Your task to perform on an android device: Show the shopping cart on amazon.com. Image 0: 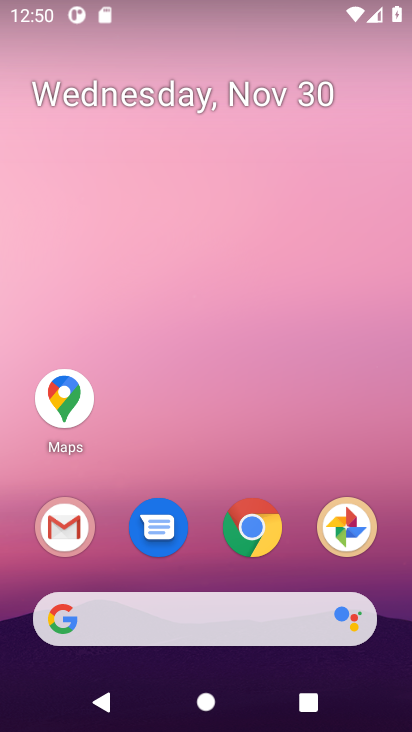
Step 0: click (263, 605)
Your task to perform on an android device: Show the shopping cart on amazon.com. Image 1: 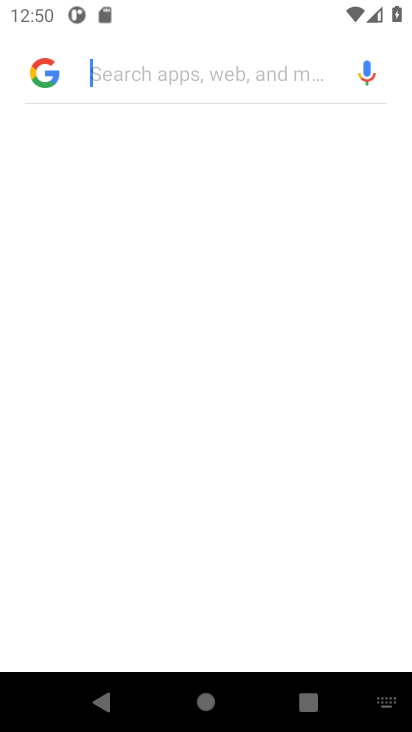
Step 1: press home button
Your task to perform on an android device: Show the shopping cart on amazon.com. Image 2: 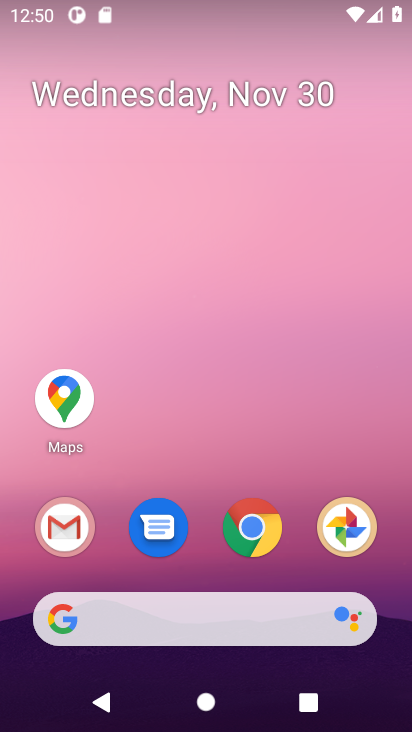
Step 2: click (264, 536)
Your task to perform on an android device: Show the shopping cart on amazon.com. Image 3: 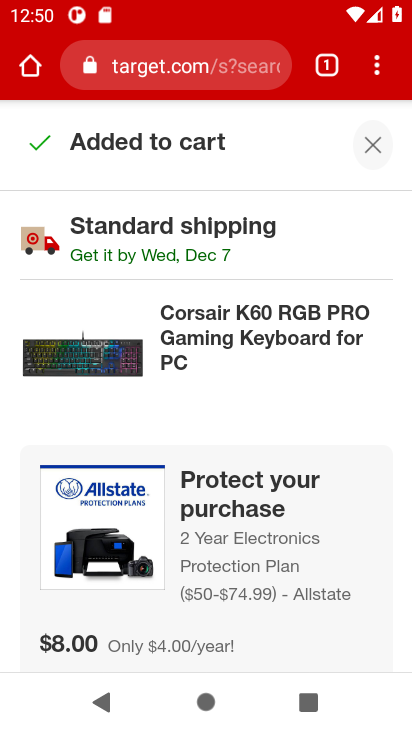
Step 3: click (371, 144)
Your task to perform on an android device: Show the shopping cart on amazon.com. Image 4: 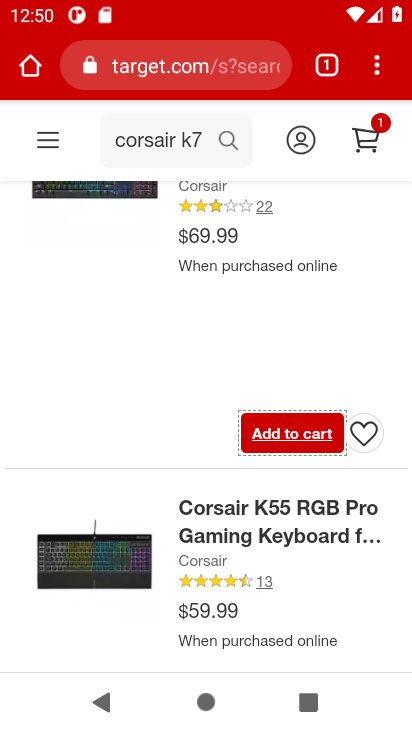
Step 4: click (205, 137)
Your task to perform on an android device: Show the shopping cart on amazon.com. Image 5: 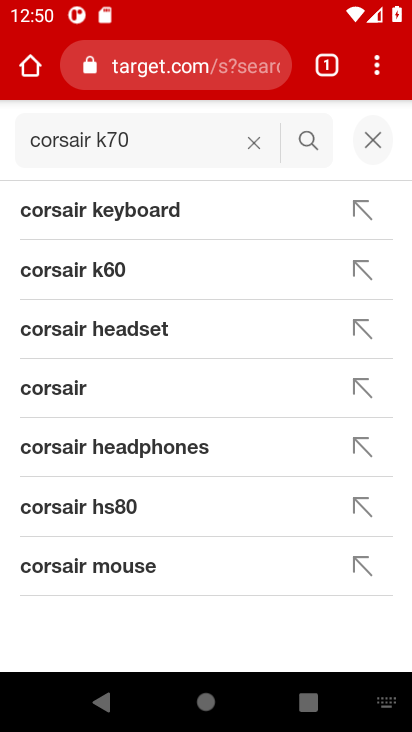
Step 5: click (246, 137)
Your task to perform on an android device: Show the shopping cart on amazon.com. Image 6: 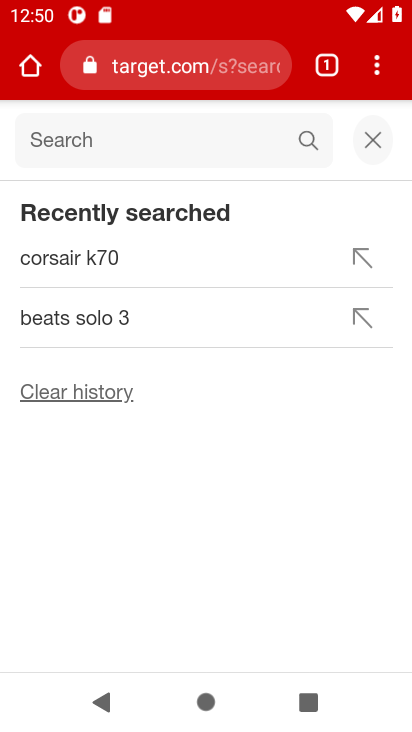
Step 6: click (195, 62)
Your task to perform on an android device: Show the shopping cart on amazon.com. Image 7: 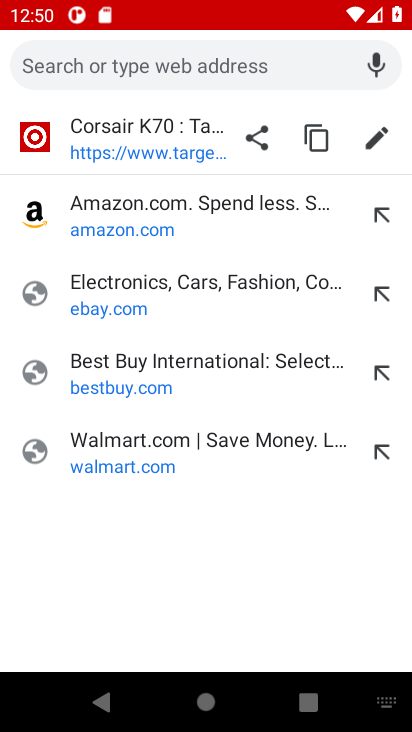
Step 7: click (189, 222)
Your task to perform on an android device: Show the shopping cart on amazon.com. Image 8: 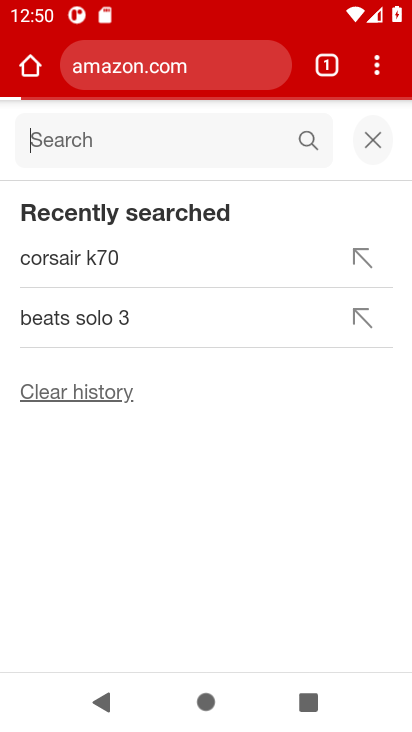
Step 8: click (136, 124)
Your task to perform on an android device: Show the shopping cart on amazon.com. Image 9: 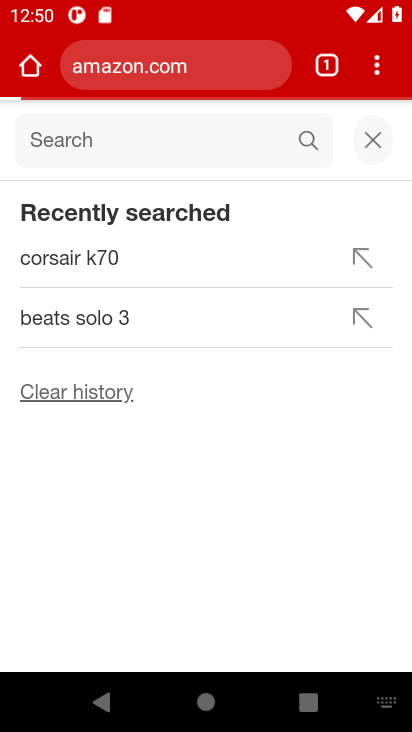
Step 9: click (212, 73)
Your task to perform on an android device: Show the shopping cart on amazon.com. Image 10: 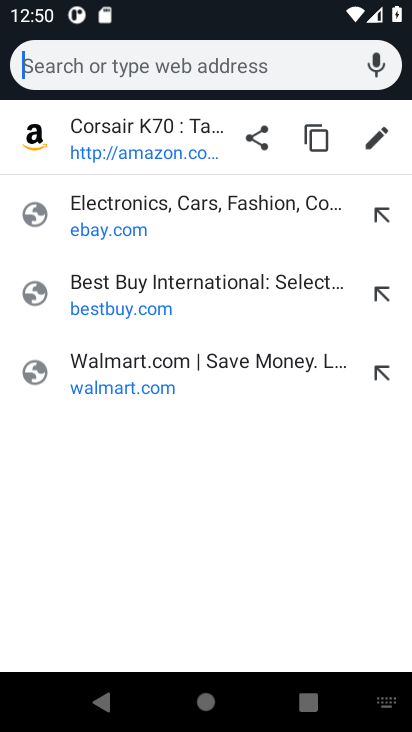
Step 10: press back button
Your task to perform on an android device: Show the shopping cart on amazon.com. Image 11: 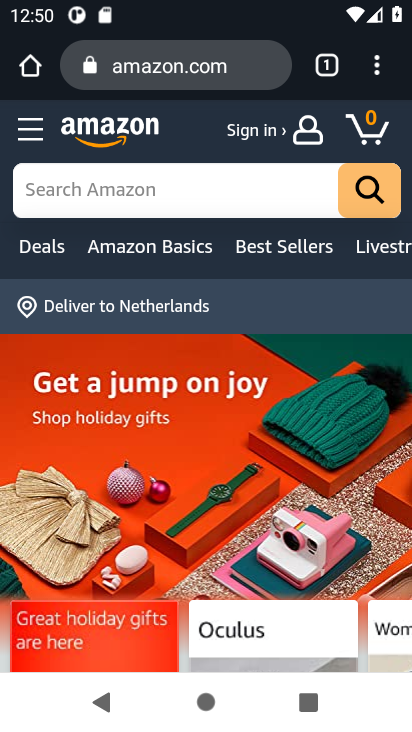
Step 11: click (196, 202)
Your task to perform on an android device: Show the shopping cart on amazon.com. Image 12: 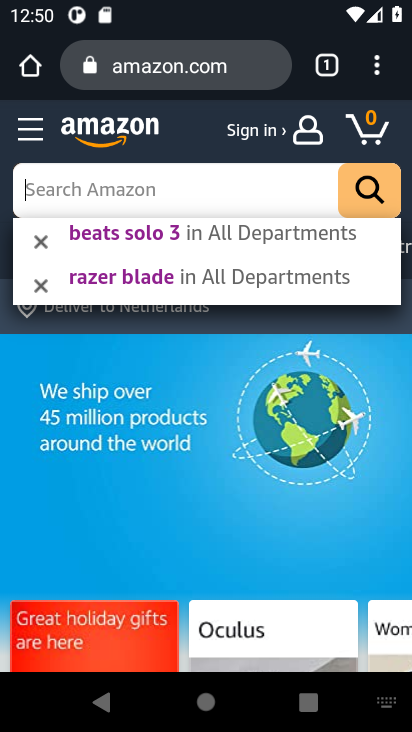
Step 12: click (359, 132)
Your task to perform on an android device: Show the shopping cart on amazon.com. Image 13: 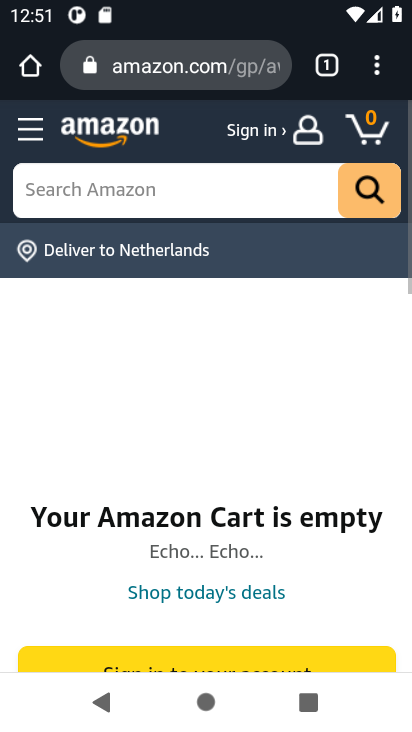
Step 13: task complete